Your task to perform on an android device: Open the stopwatch Image 0: 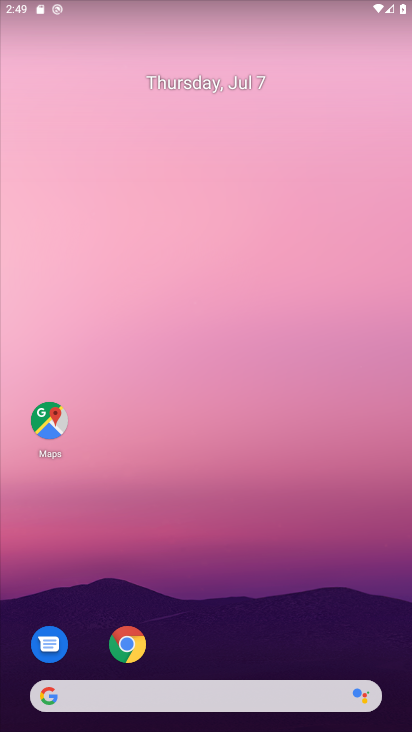
Step 0: drag from (221, 647) to (228, 86)
Your task to perform on an android device: Open the stopwatch Image 1: 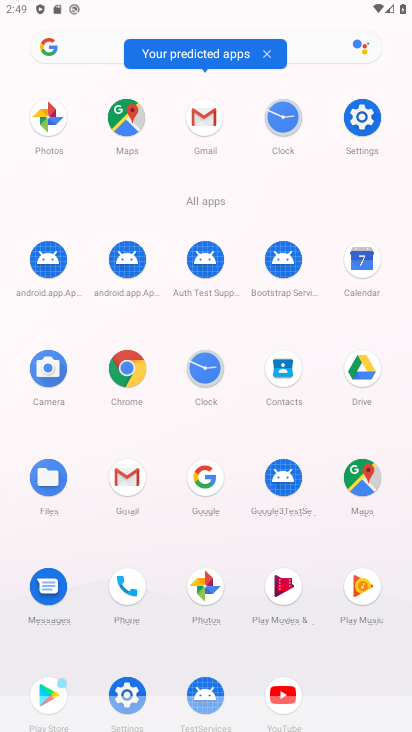
Step 1: click (201, 365)
Your task to perform on an android device: Open the stopwatch Image 2: 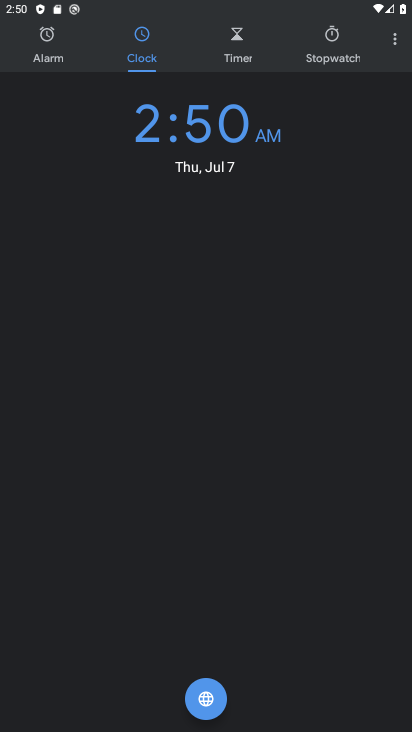
Step 2: click (331, 37)
Your task to perform on an android device: Open the stopwatch Image 3: 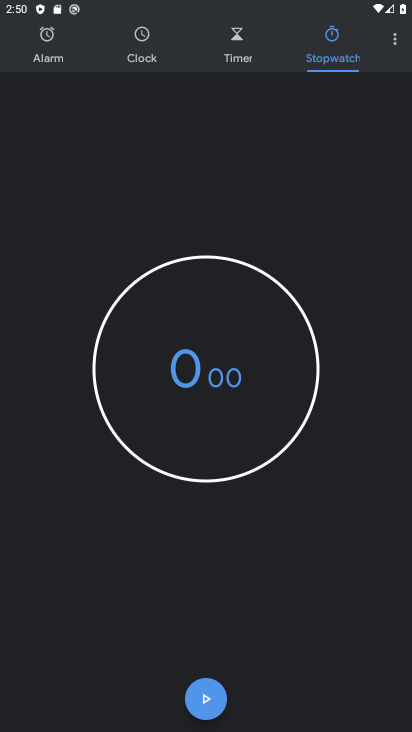
Step 3: click (206, 691)
Your task to perform on an android device: Open the stopwatch Image 4: 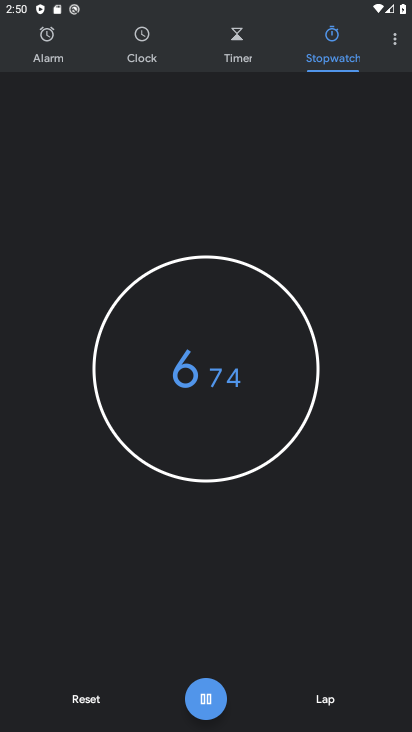
Step 4: task complete